Your task to perform on an android device: Open calendar and show me the fourth week of next month Image 0: 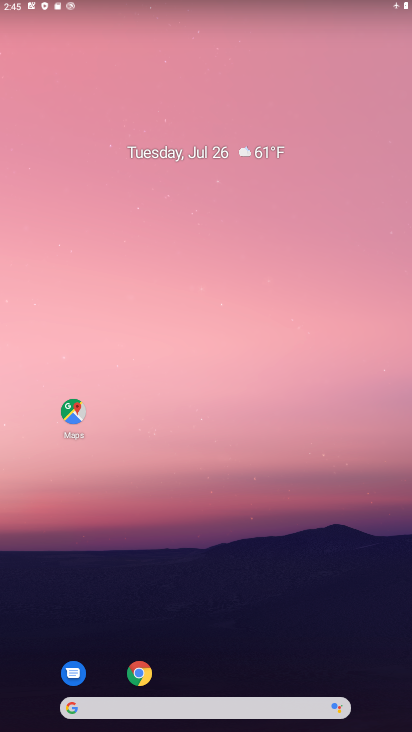
Step 0: drag from (191, 593) to (183, 110)
Your task to perform on an android device: Open calendar and show me the fourth week of next month Image 1: 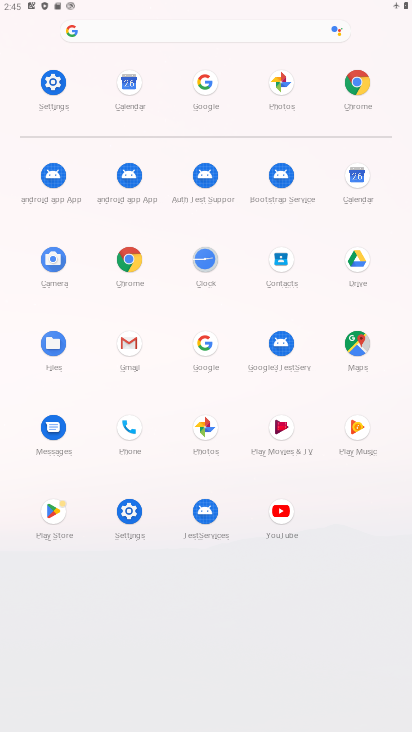
Step 1: click (356, 175)
Your task to perform on an android device: Open calendar and show me the fourth week of next month Image 2: 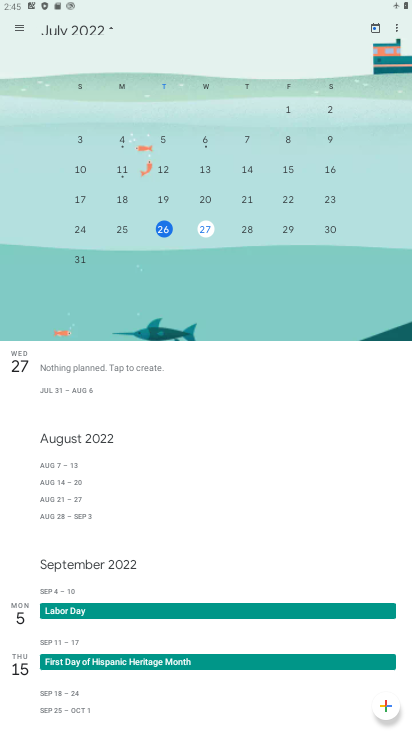
Step 2: drag from (210, 521) to (252, 282)
Your task to perform on an android device: Open calendar and show me the fourth week of next month Image 3: 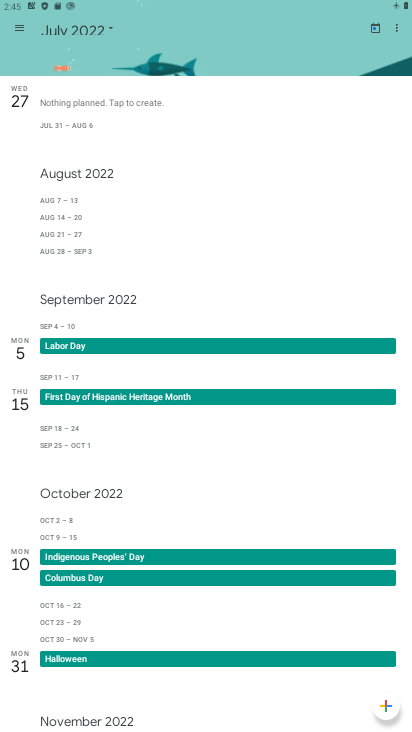
Step 3: drag from (197, 273) to (235, 506)
Your task to perform on an android device: Open calendar and show me the fourth week of next month Image 4: 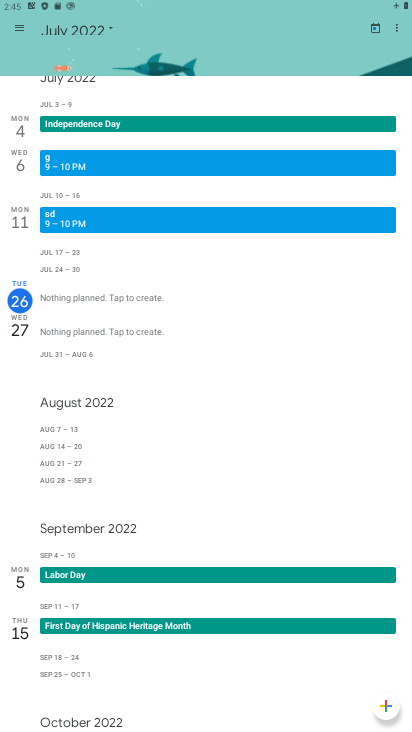
Step 4: click (74, 18)
Your task to perform on an android device: Open calendar and show me the fourth week of next month Image 5: 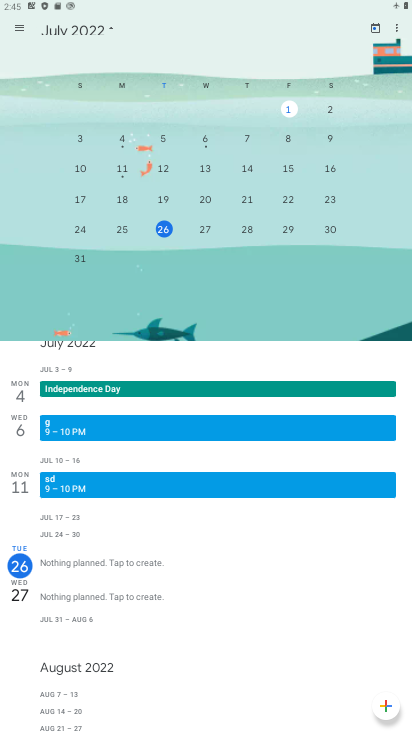
Step 5: click (102, 29)
Your task to perform on an android device: Open calendar and show me the fourth week of next month Image 6: 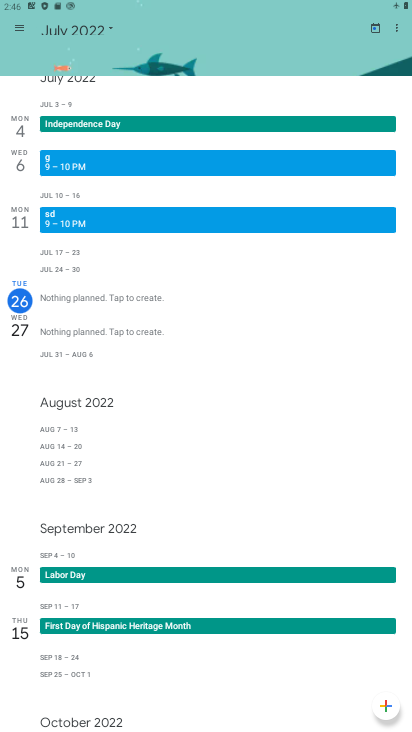
Step 6: click (79, 28)
Your task to perform on an android device: Open calendar and show me the fourth week of next month Image 7: 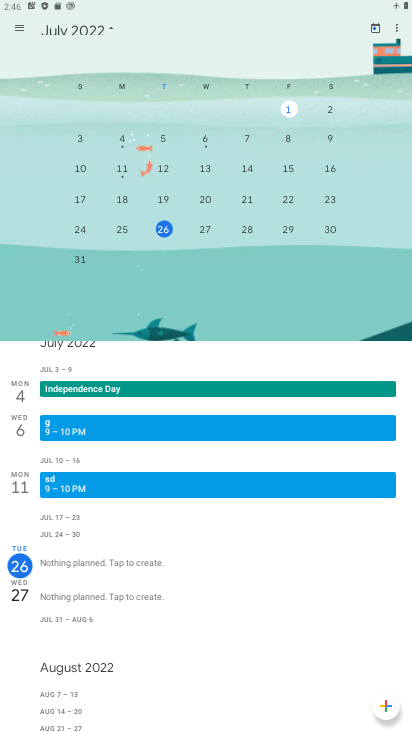
Step 7: drag from (321, 189) to (5, 193)
Your task to perform on an android device: Open calendar and show me the fourth week of next month Image 8: 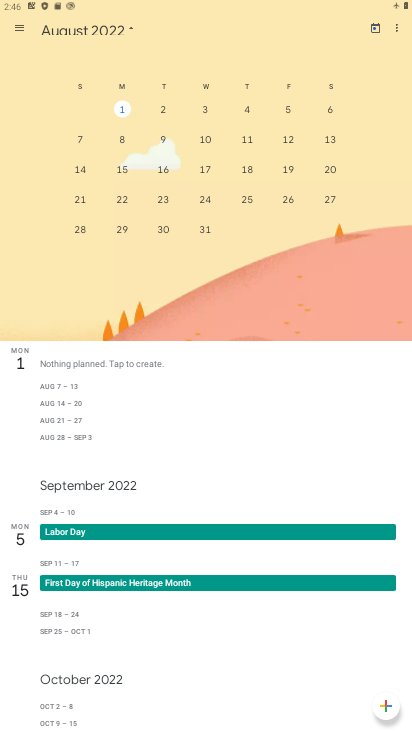
Step 8: click (204, 198)
Your task to perform on an android device: Open calendar and show me the fourth week of next month Image 9: 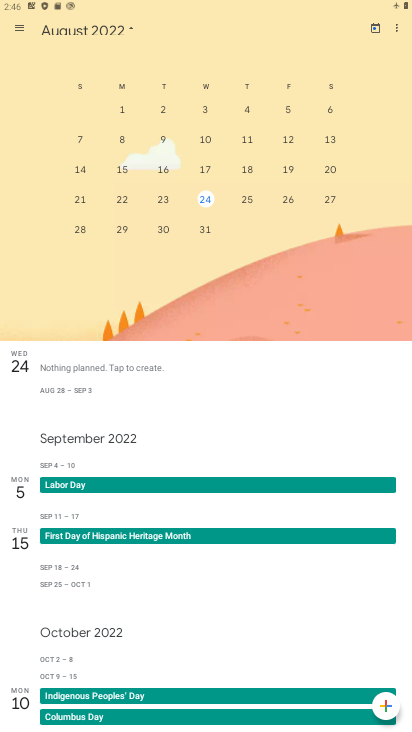
Step 9: task complete